Your task to perform on an android device: Go to Amazon Image 0: 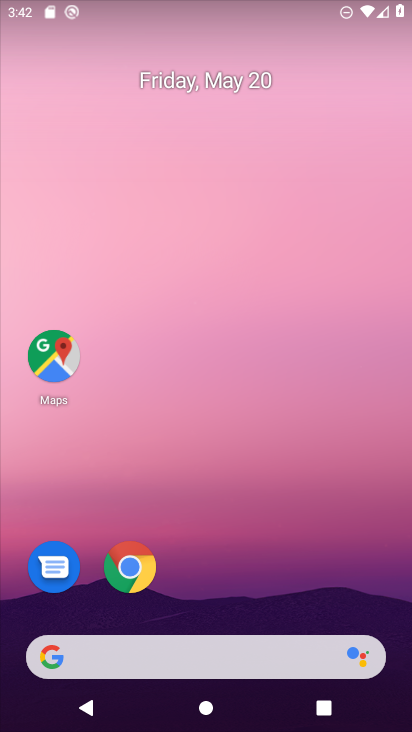
Step 0: click (136, 574)
Your task to perform on an android device: Go to Amazon Image 1: 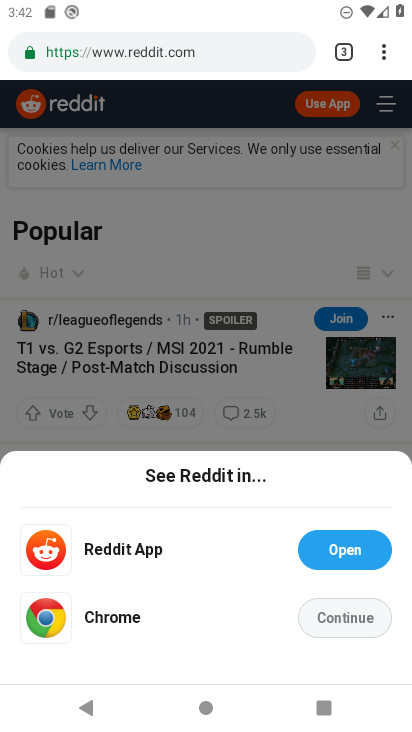
Step 1: click (383, 54)
Your task to perform on an android device: Go to Amazon Image 2: 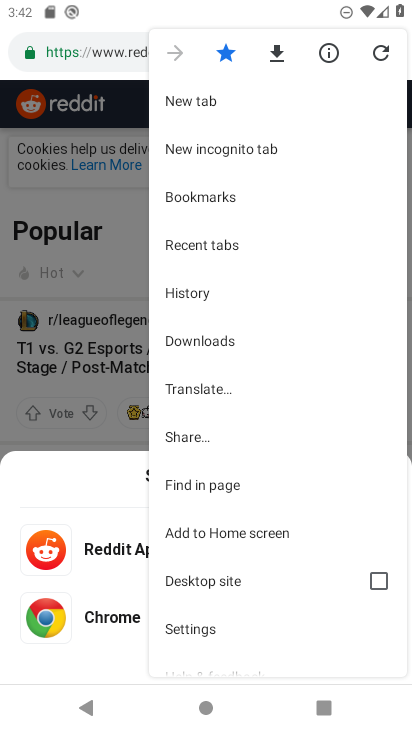
Step 2: click (195, 98)
Your task to perform on an android device: Go to Amazon Image 3: 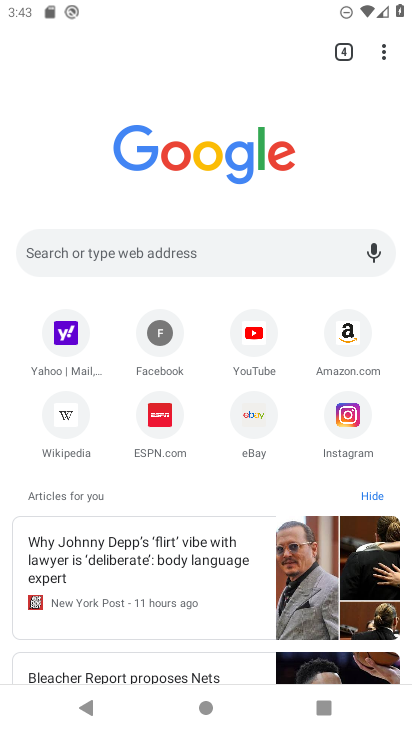
Step 3: click (345, 335)
Your task to perform on an android device: Go to Amazon Image 4: 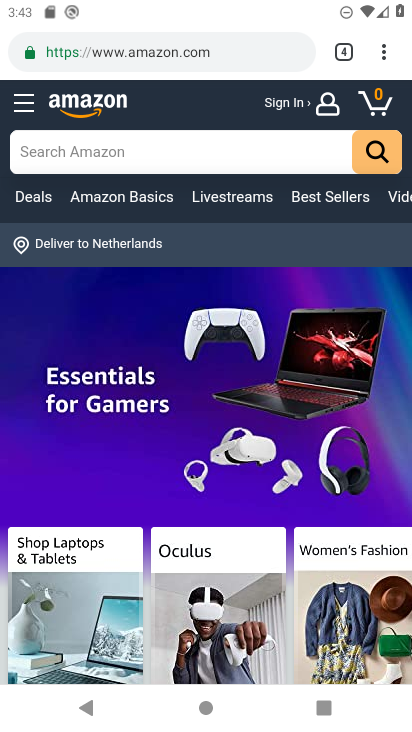
Step 4: task complete